Your task to perform on an android device: Open calendar and show me the first week of next month Image 0: 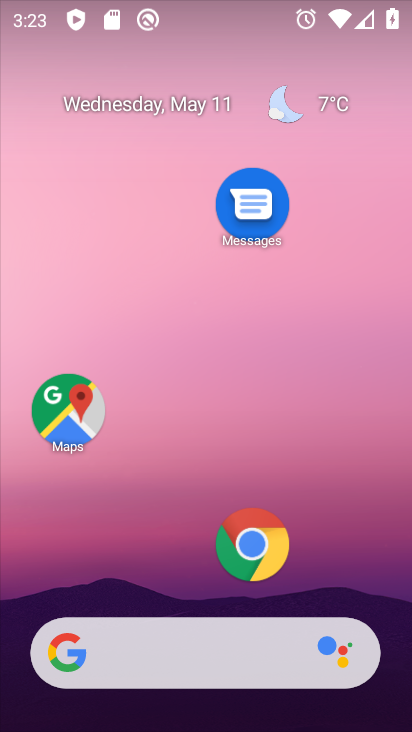
Step 0: drag from (159, 575) to (254, 78)
Your task to perform on an android device: Open calendar and show me the first week of next month Image 1: 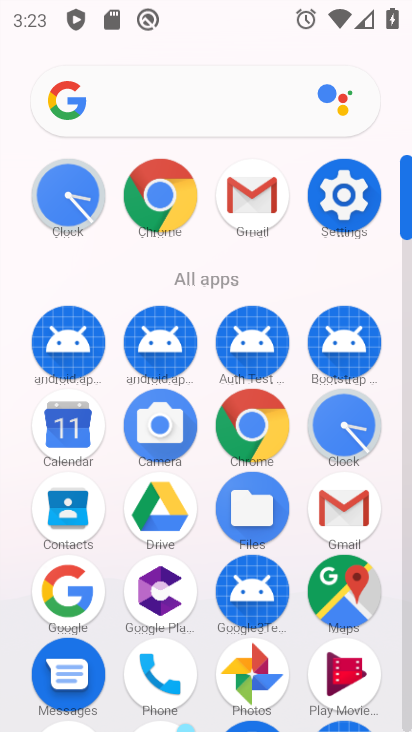
Step 1: click (72, 441)
Your task to perform on an android device: Open calendar and show me the first week of next month Image 2: 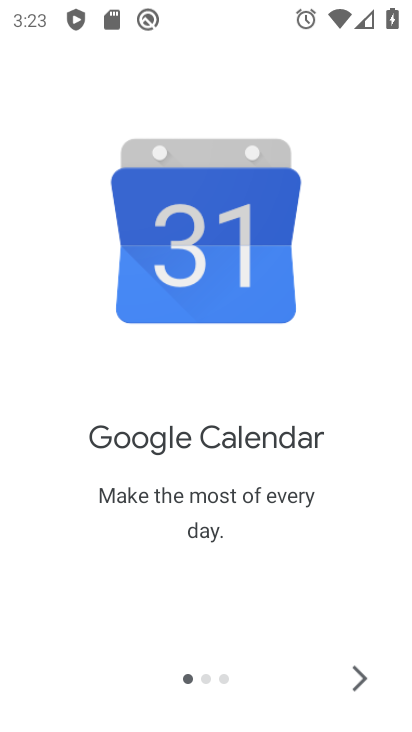
Step 2: click (364, 663)
Your task to perform on an android device: Open calendar and show me the first week of next month Image 3: 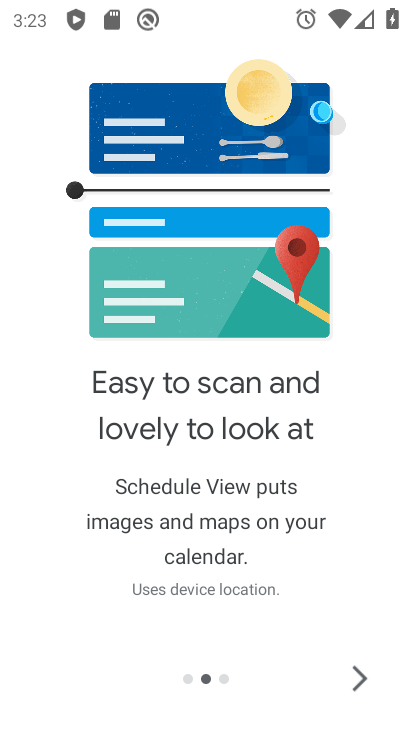
Step 3: click (364, 663)
Your task to perform on an android device: Open calendar and show me the first week of next month Image 4: 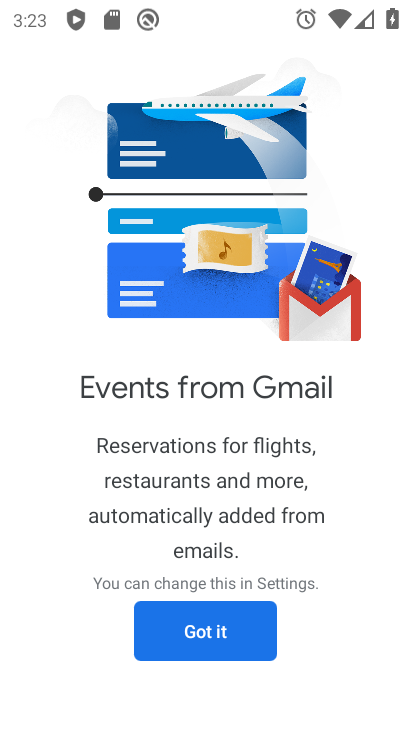
Step 4: click (211, 671)
Your task to perform on an android device: Open calendar and show me the first week of next month Image 5: 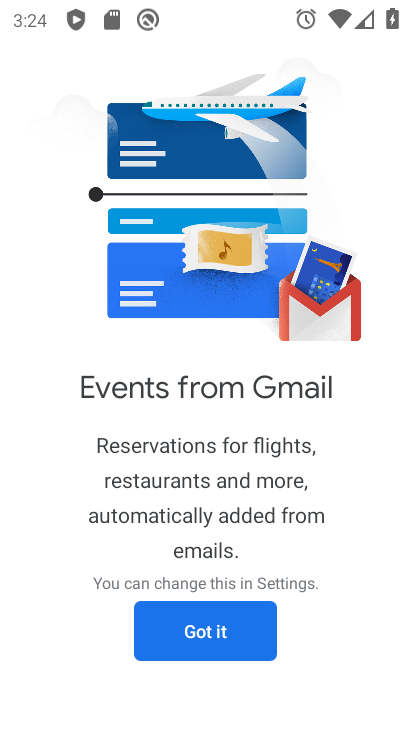
Step 5: click (188, 635)
Your task to perform on an android device: Open calendar and show me the first week of next month Image 6: 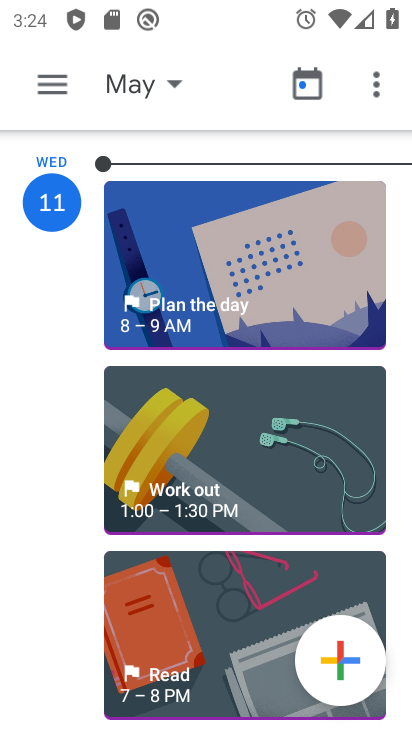
Step 6: click (151, 75)
Your task to perform on an android device: Open calendar and show me the first week of next month Image 7: 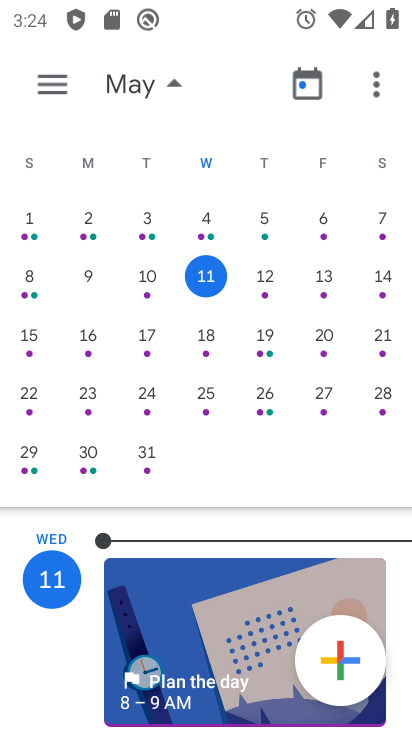
Step 7: task complete